Your task to perform on an android device: Open accessibility settings Image 0: 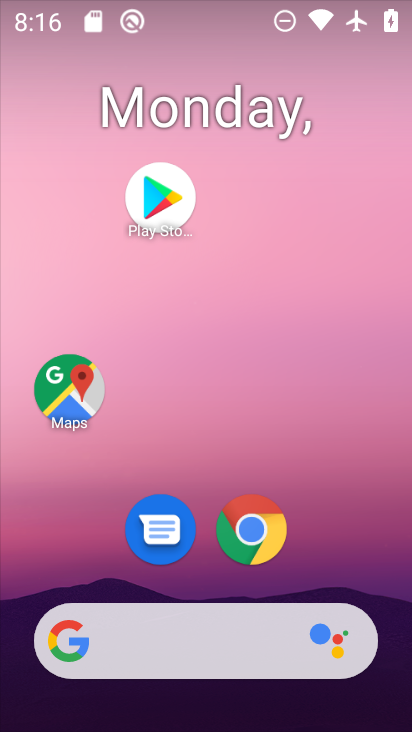
Step 0: drag from (343, 530) to (267, 27)
Your task to perform on an android device: Open accessibility settings Image 1: 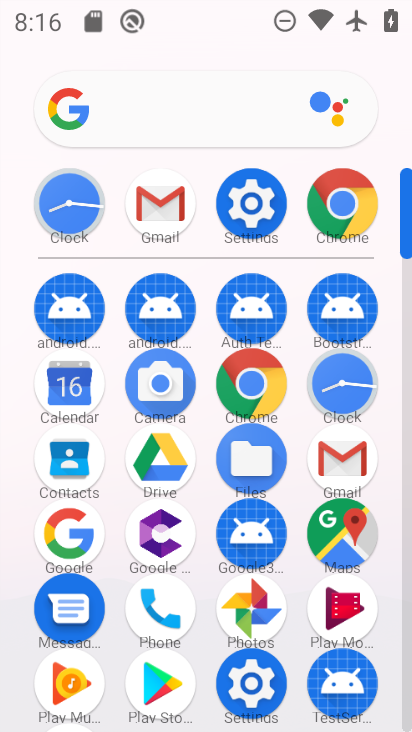
Step 1: click (253, 206)
Your task to perform on an android device: Open accessibility settings Image 2: 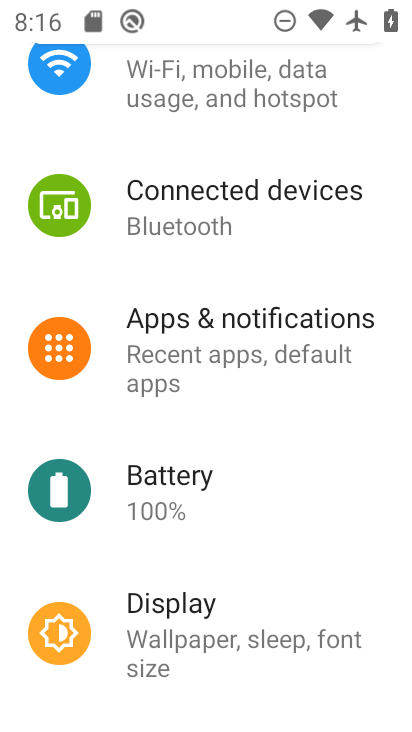
Step 2: drag from (281, 527) to (230, 174)
Your task to perform on an android device: Open accessibility settings Image 3: 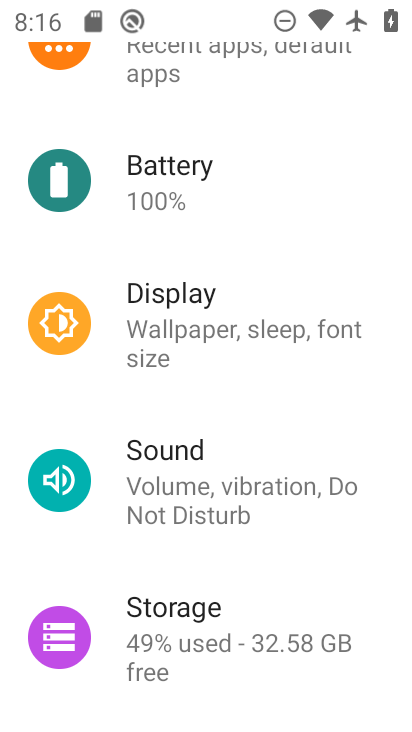
Step 3: drag from (269, 561) to (234, 218)
Your task to perform on an android device: Open accessibility settings Image 4: 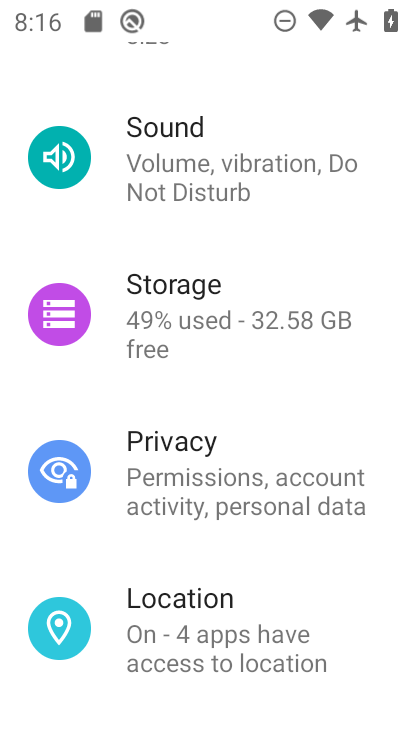
Step 4: drag from (255, 547) to (180, 90)
Your task to perform on an android device: Open accessibility settings Image 5: 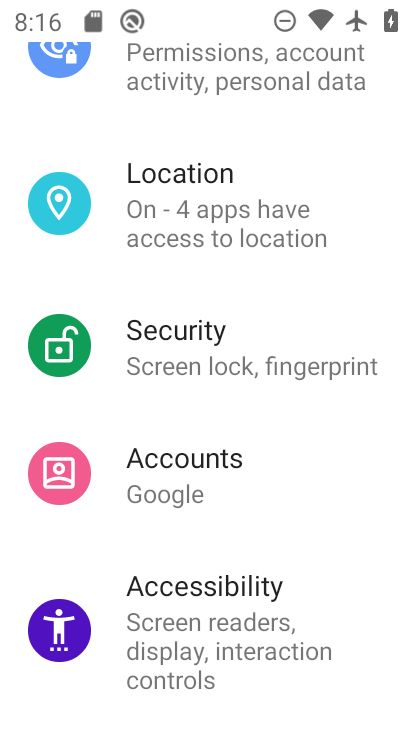
Step 5: click (220, 589)
Your task to perform on an android device: Open accessibility settings Image 6: 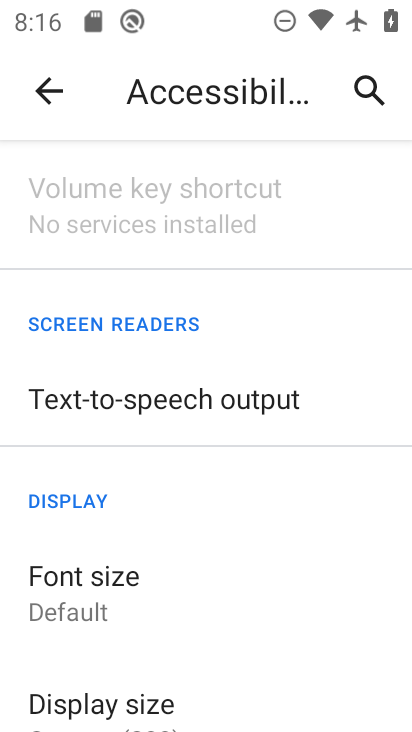
Step 6: task complete